Your task to perform on an android device: Open the calendar app, open the side menu, and click the "Day" option Image 0: 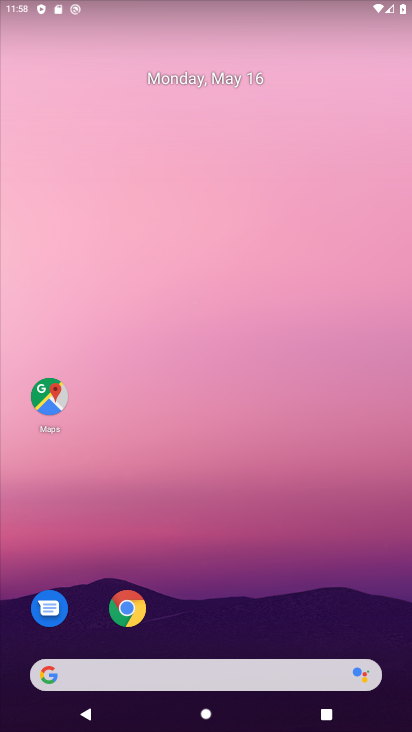
Step 0: drag from (213, 625) to (181, 55)
Your task to perform on an android device: Open the calendar app, open the side menu, and click the "Day" option Image 1: 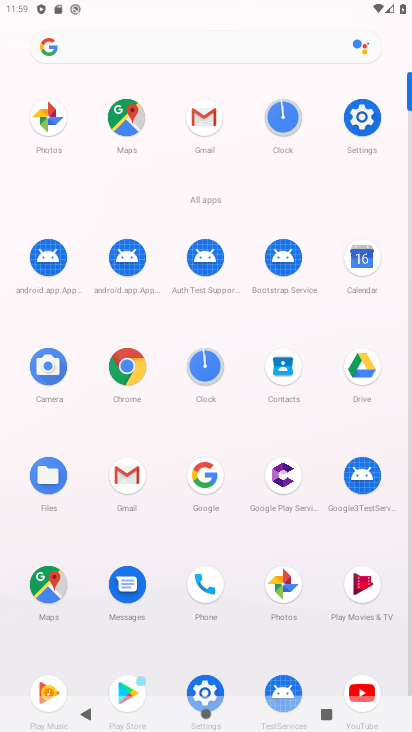
Step 1: click (353, 265)
Your task to perform on an android device: Open the calendar app, open the side menu, and click the "Day" option Image 2: 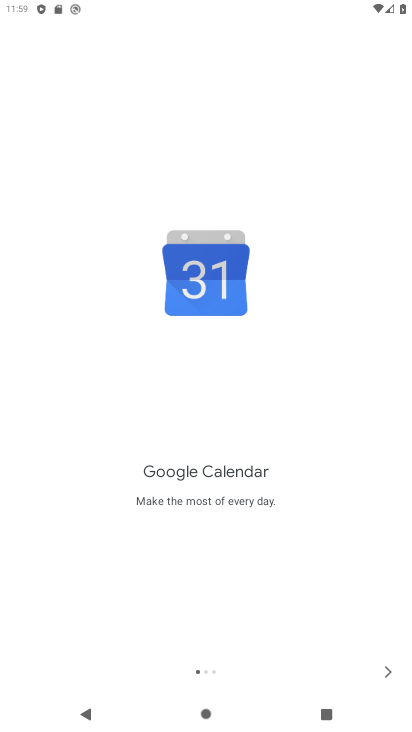
Step 2: click (389, 672)
Your task to perform on an android device: Open the calendar app, open the side menu, and click the "Day" option Image 3: 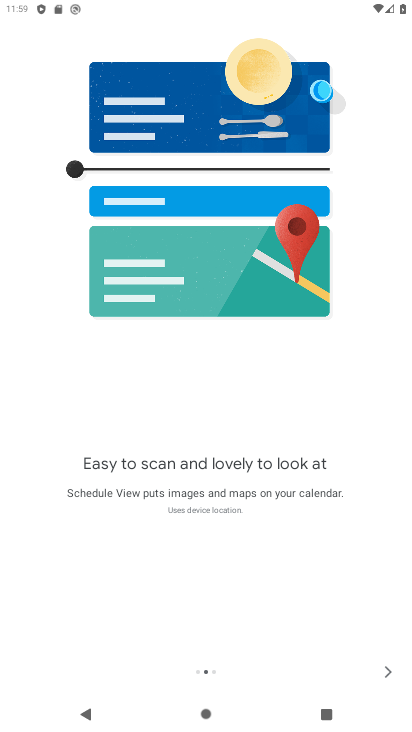
Step 3: click (383, 672)
Your task to perform on an android device: Open the calendar app, open the side menu, and click the "Day" option Image 4: 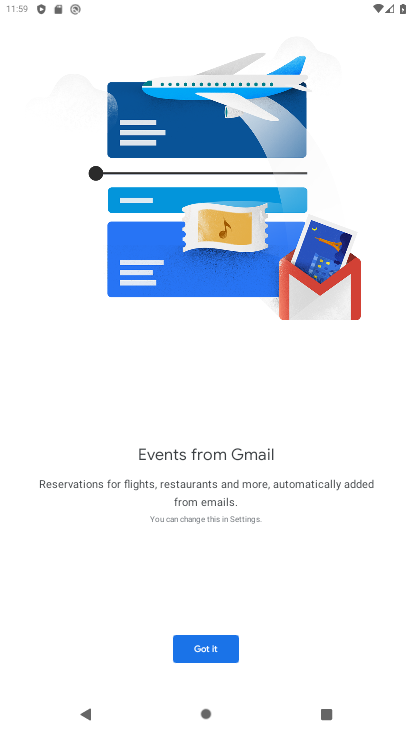
Step 4: click (384, 672)
Your task to perform on an android device: Open the calendar app, open the side menu, and click the "Day" option Image 5: 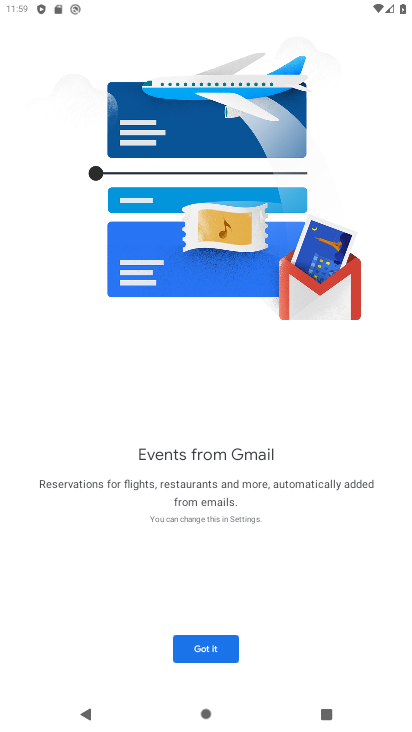
Step 5: click (206, 660)
Your task to perform on an android device: Open the calendar app, open the side menu, and click the "Day" option Image 6: 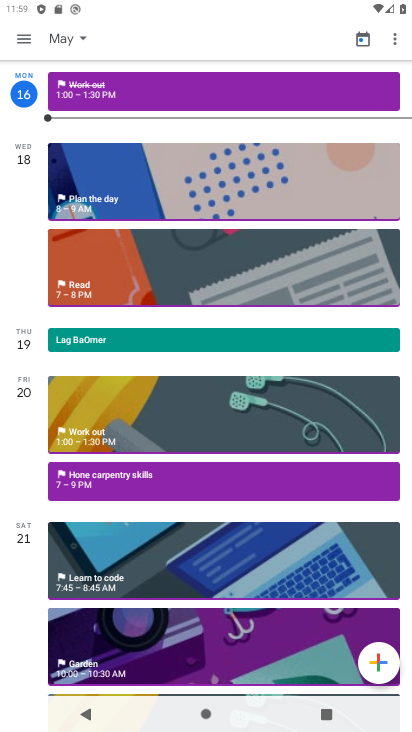
Step 6: click (24, 35)
Your task to perform on an android device: Open the calendar app, open the side menu, and click the "Day" option Image 7: 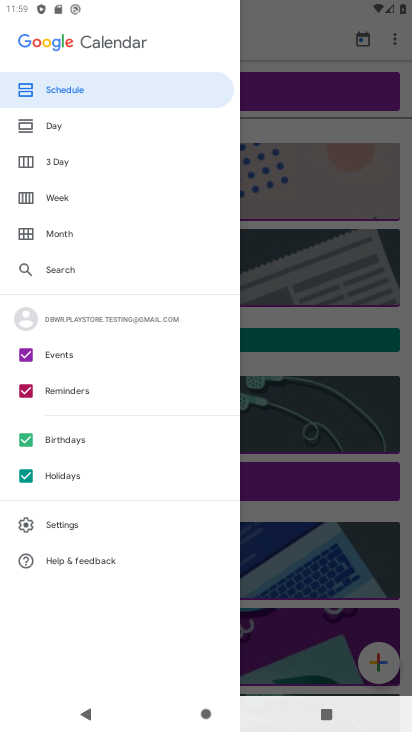
Step 7: click (56, 133)
Your task to perform on an android device: Open the calendar app, open the side menu, and click the "Day" option Image 8: 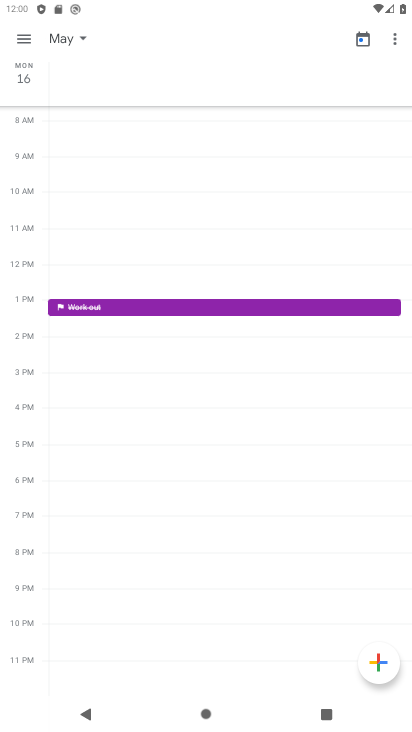
Step 8: task complete